Your task to perform on an android device: Show me the alarms in the clock app Image 0: 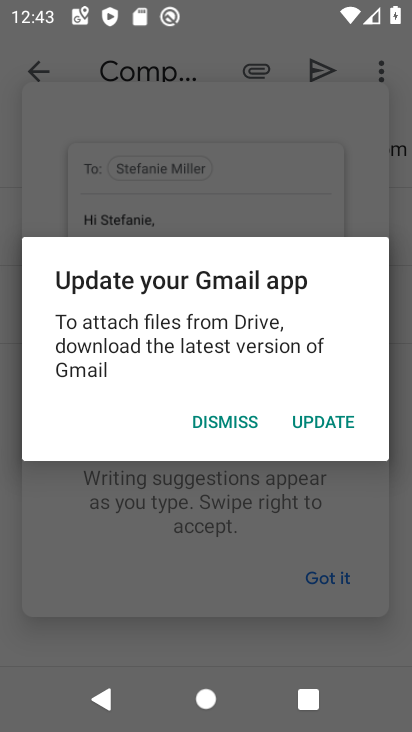
Step 0: press home button
Your task to perform on an android device: Show me the alarms in the clock app Image 1: 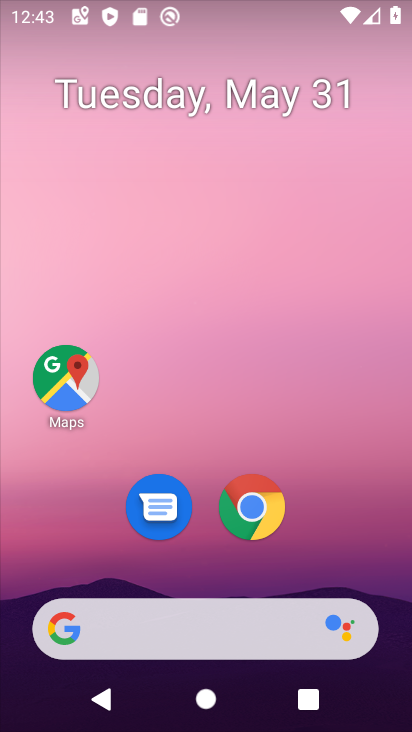
Step 1: drag from (351, 550) to (245, 22)
Your task to perform on an android device: Show me the alarms in the clock app Image 2: 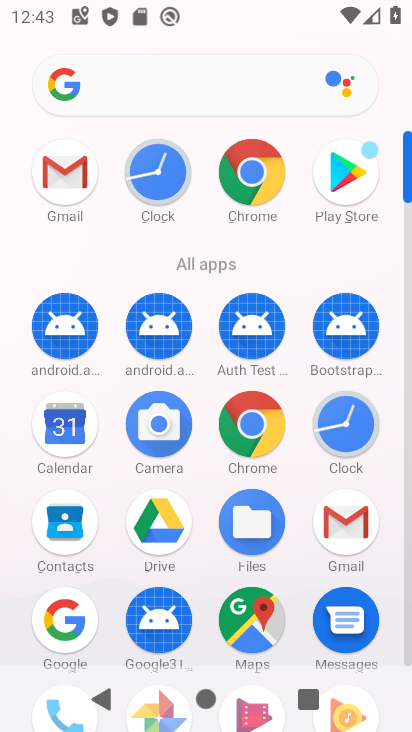
Step 2: click (325, 420)
Your task to perform on an android device: Show me the alarms in the clock app Image 3: 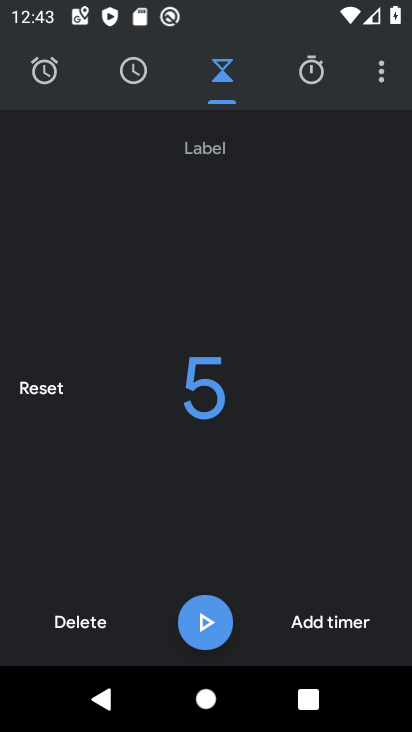
Step 3: click (162, 85)
Your task to perform on an android device: Show me the alarms in the clock app Image 4: 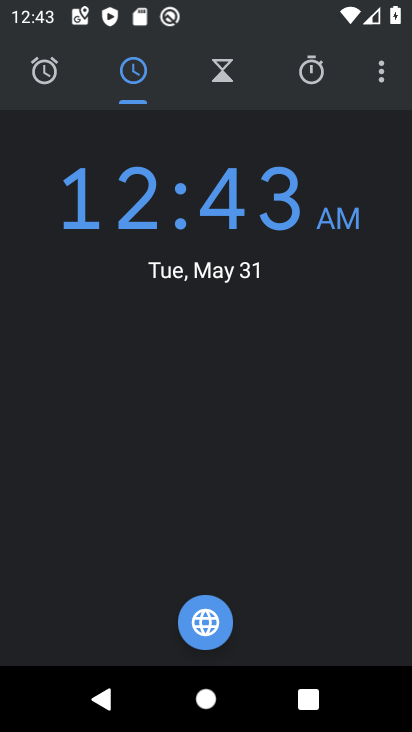
Step 4: click (38, 89)
Your task to perform on an android device: Show me the alarms in the clock app Image 5: 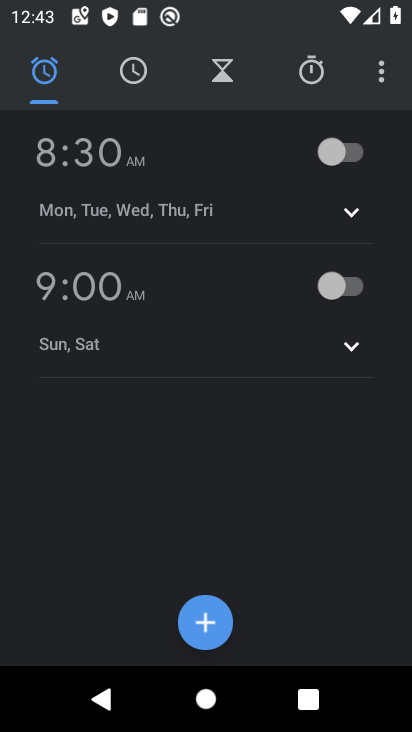
Step 5: task complete